Your task to perform on an android device: change your default location settings in chrome Image 0: 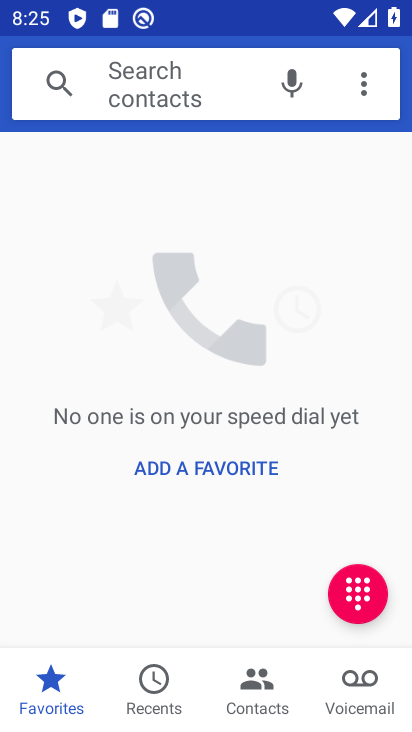
Step 0: press home button
Your task to perform on an android device: change your default location settings in chrome Image 1: 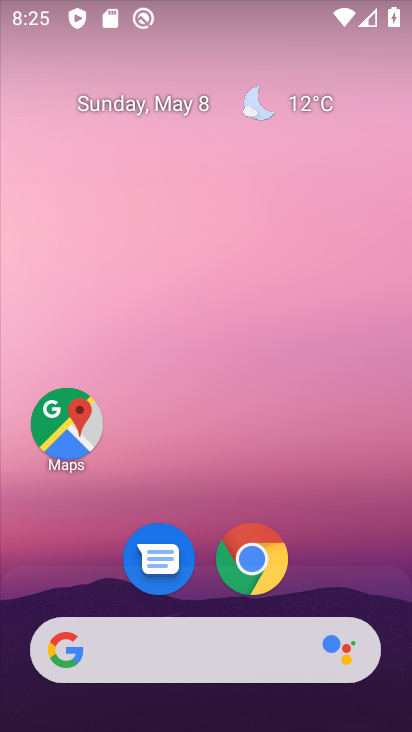
Step 1: drag from (204, 609) to (172, 46)
Your task to perform on an android device: change your default location settings in chrome Image 2: 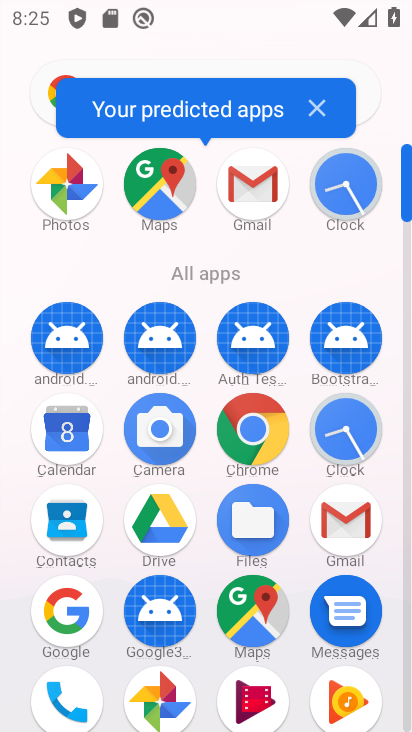
Step 2: click (248, 432)
Your task to perform on an android device: change your default location settings in chrome Image 3: 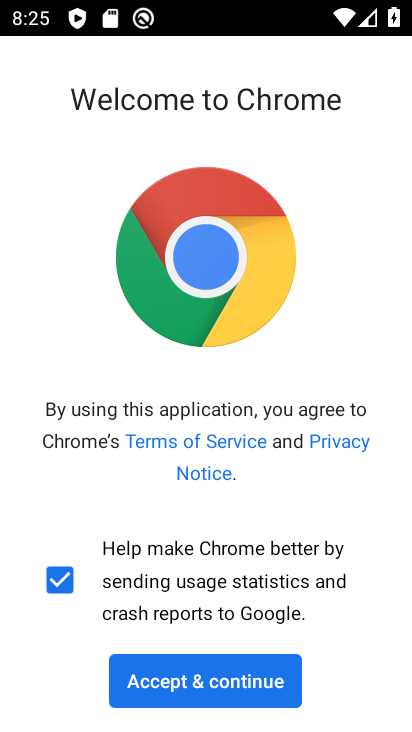
Step 3: click (129, 686)
Your task to perform on an android device: change your default location settings in chrome Image 4: 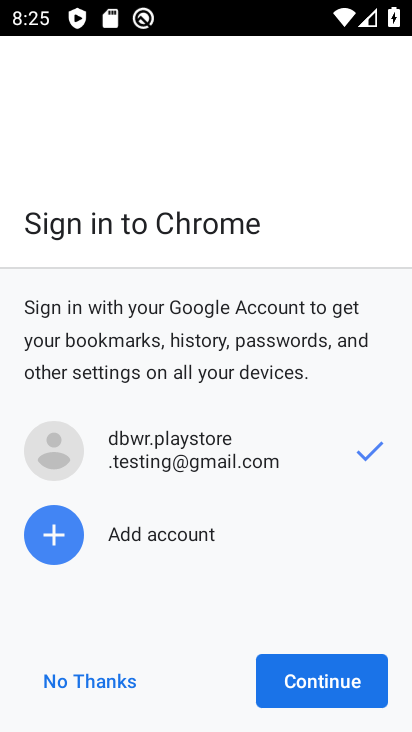
Step 4: click (335, 682)
Your task to perform on an android device: change your default location settings in chrome Image 5: 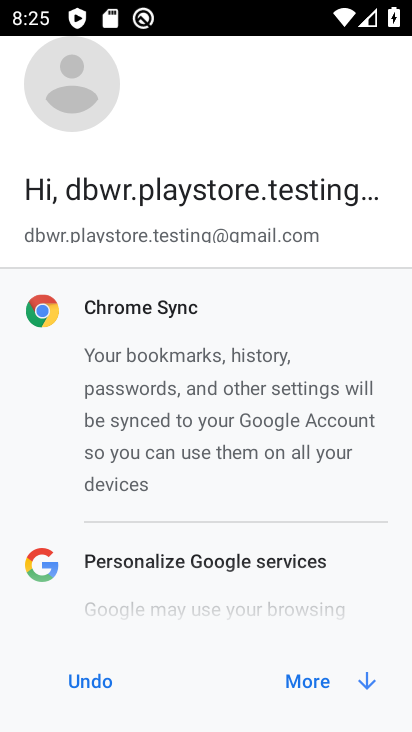
Step 5: click (329, 673)
Your task to perform on an android device: change your default location settings in chrome Image 6: 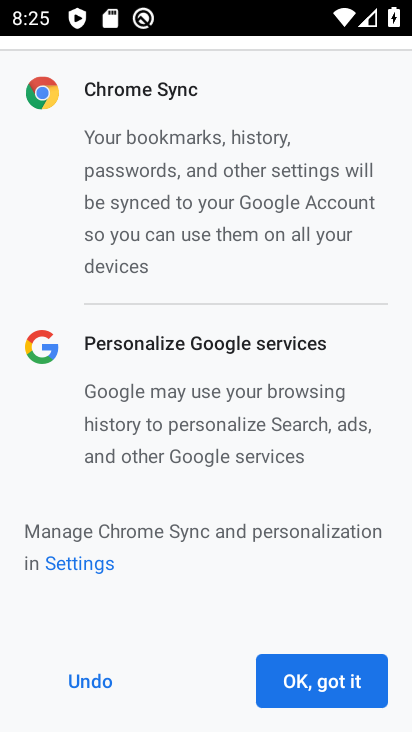
Step 6: click (329, 673)
Your task to perform on an android device: change your default location settings in chrome Image 7: 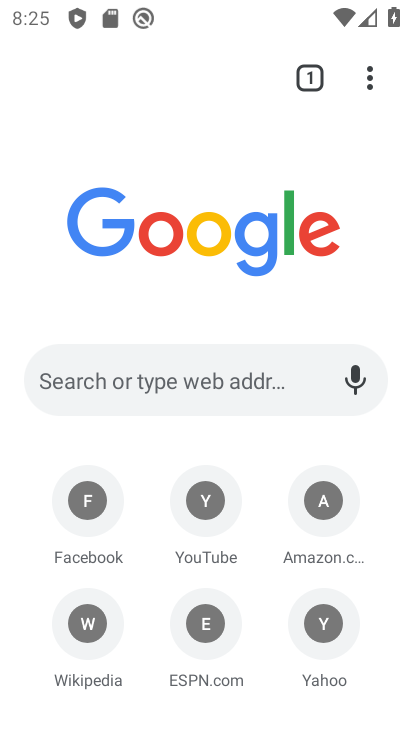
Step 7: click (366, 88)
Your task to perform on an android device: change your default location settings in chrome Image 8: 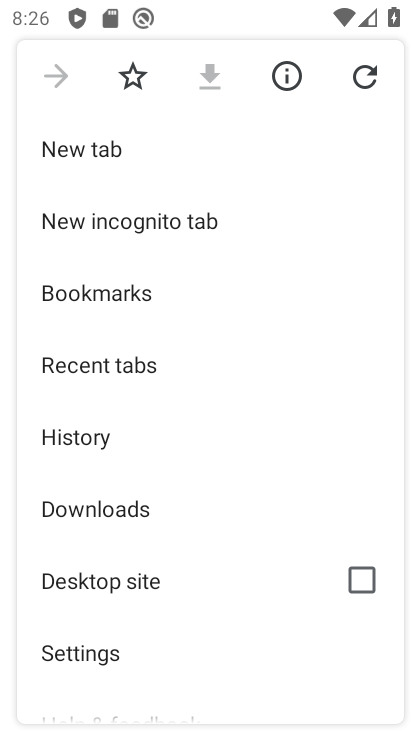
Step 8: click (101, 643)
Your task to perform on an android device: change your default location settings in chrome Image 9: 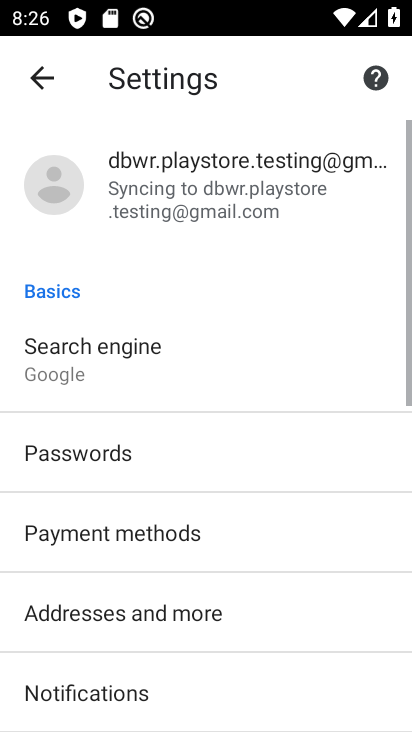
Step 9: click (33, 404)
Your task to perform on an android device: change your default location settings in chrome Image 10: 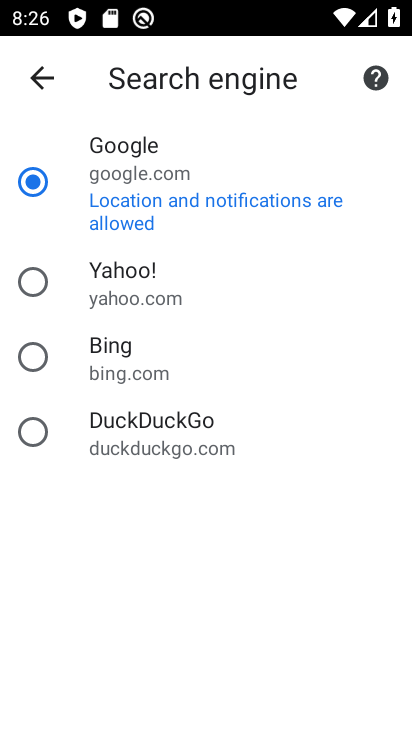
Step 10: click (35, 179)
Your task to perform on an android device: change your default location settings in chrome Image 11: 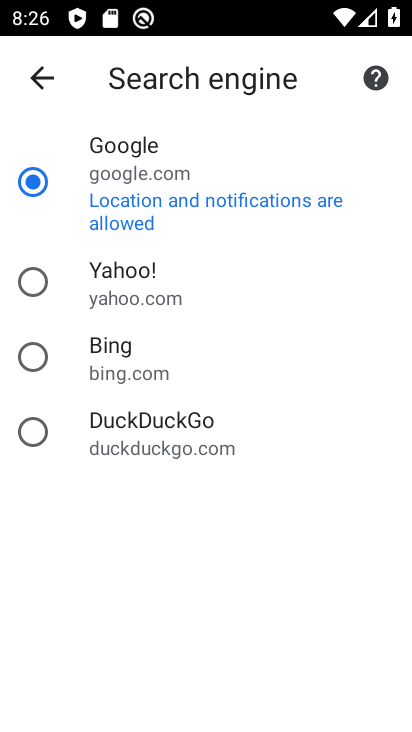
Step 11: task complete